Your task to perform on an android device: Go to Maps Image 0: 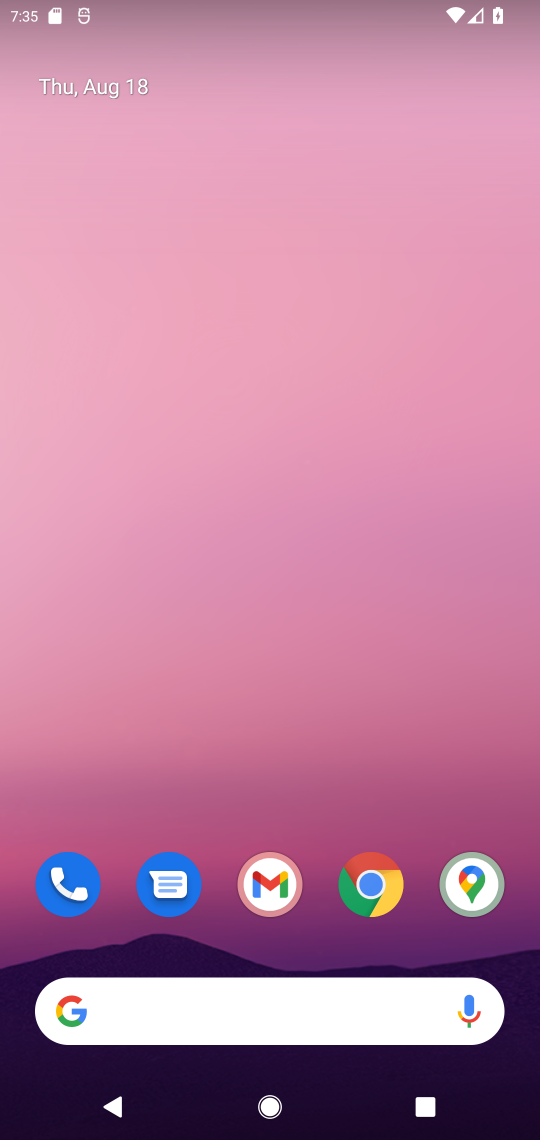
Step 0: click (473, 878)
Your task to perform on an android device: Go to Maps Image 1: 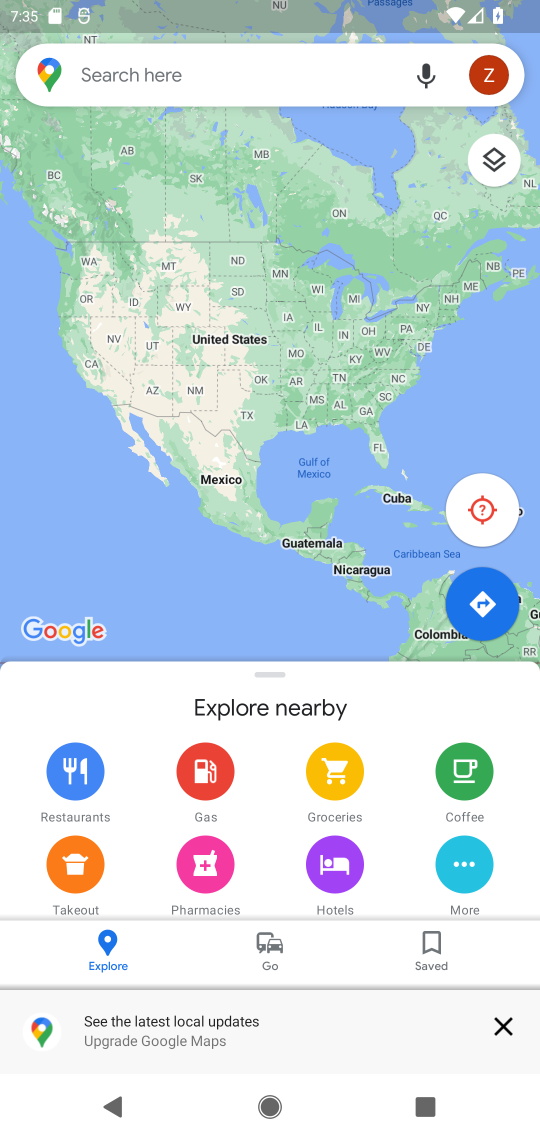
Step 1: task complete